Your task to perform on an android device: Open the Play Movies app and select the watchlist tab. Image 0: 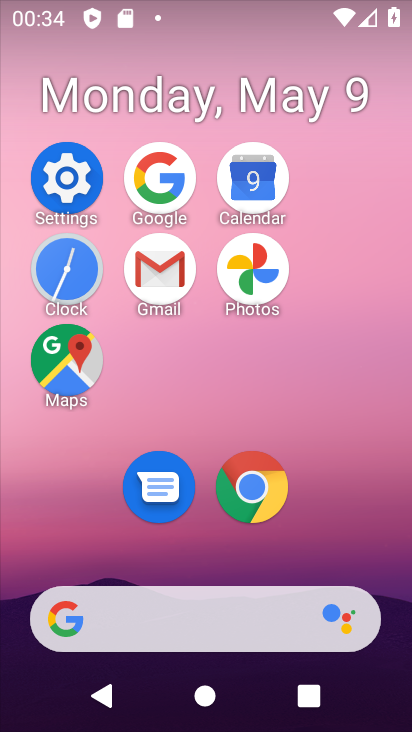
Step 0: drag from (316, 553) to (297, 132)
Your task to perform on an android device: Open the Play Movies app and select the watchlist tab. Image 1: 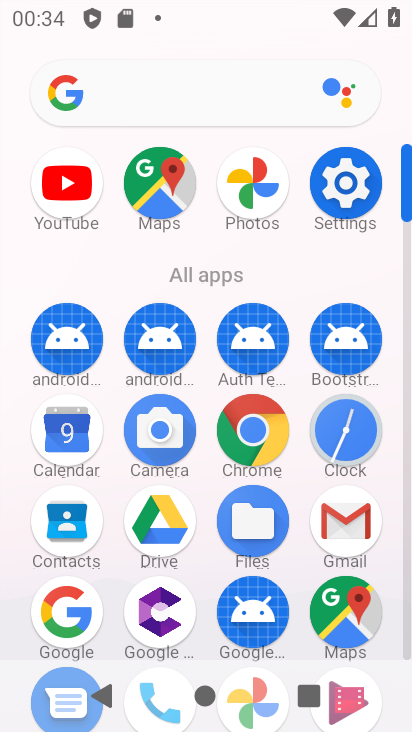
Step 1: drag from (256, 573) to (266, 201)
Your task to perform on an android device: Open the Play Movies app and select the watchlist tab. Image 2: 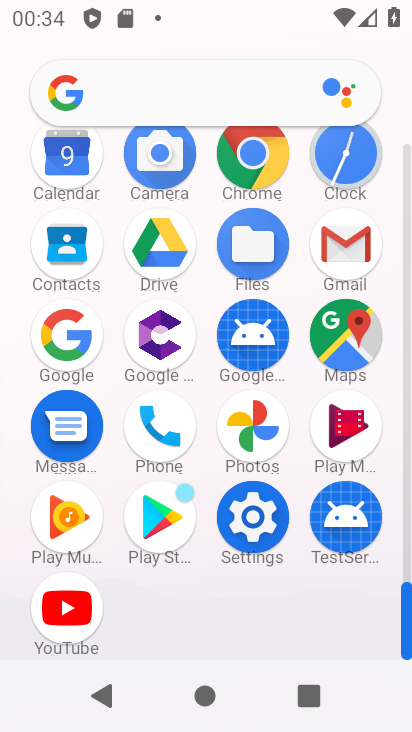
Step 2: click (360, 445)
Your task to perform on an android device: Open the Play Movies app and select the watchlist tab. Image 3: 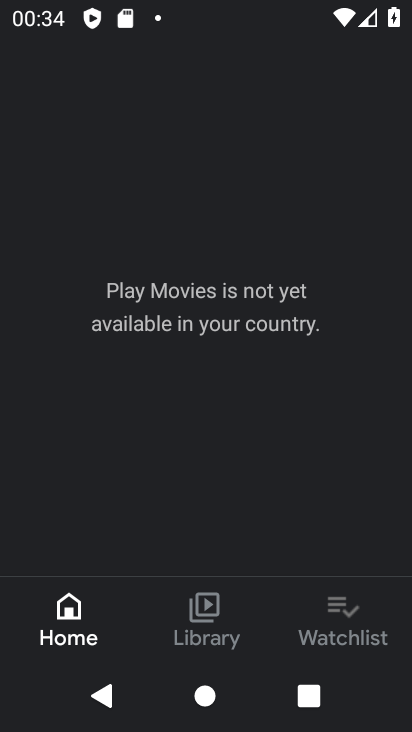
Step 3: click (342, 606)
Your task to perform on an android device: Open the Play Movies app and select the watchlist tab. Image 4: 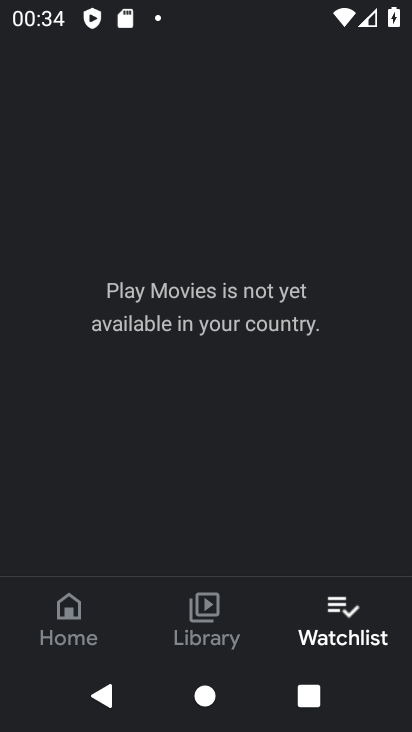
Step 4: task complete